Your task to perform on an android device: check google app version Image 0: 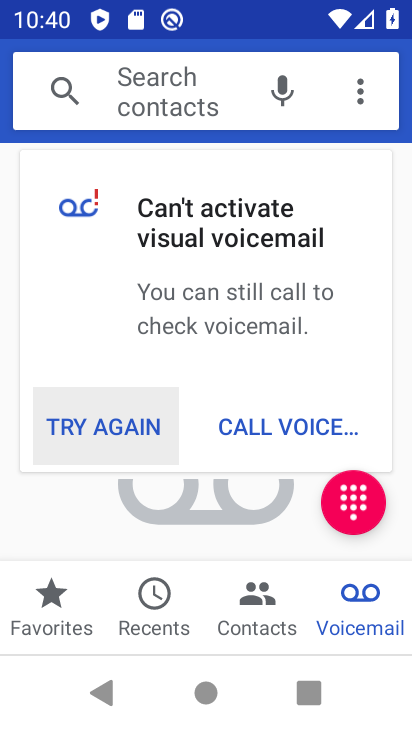
Step 0: press home button
Your task to perform on an android device: check google app version Image 1: 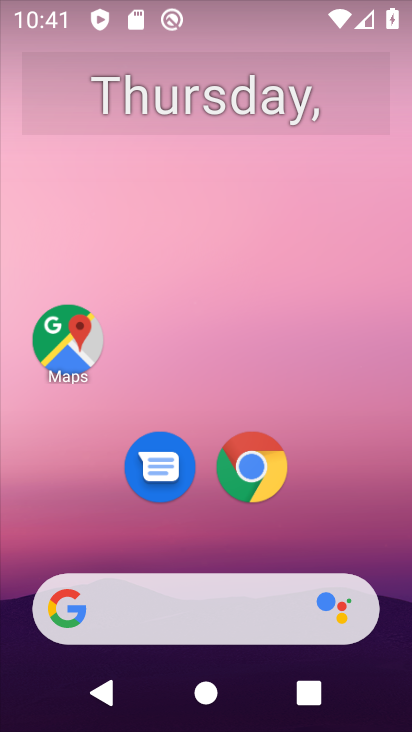
Step 1: drag from (183, 526) to (151, 212)
Your task to perform on an android device: check google app version Image 2: 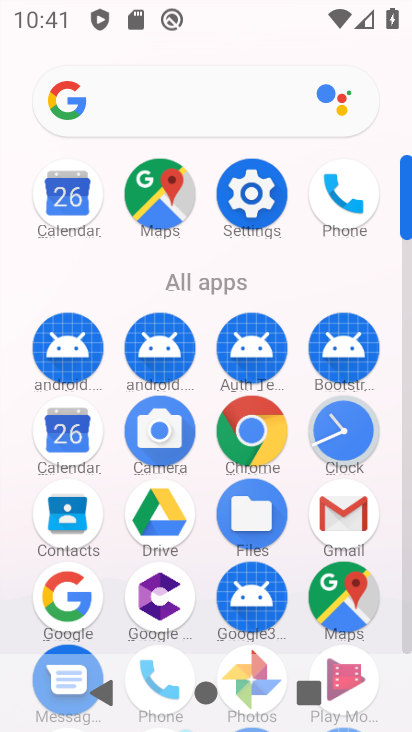
Step 2: click (54, 595)
Your task to perform on an android device: check google app version Image 3: 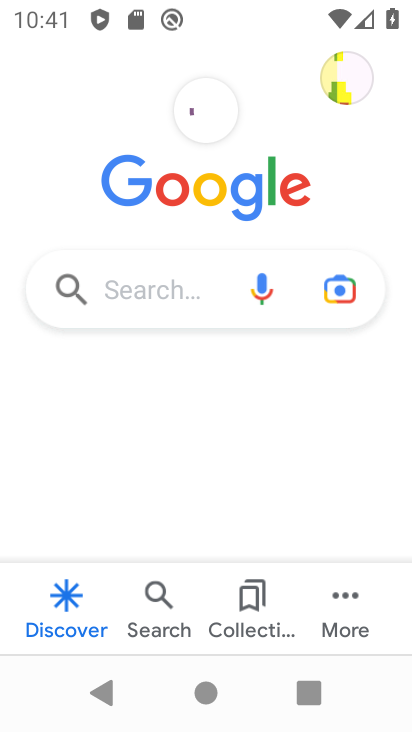
Step 3: click (217, 599)
Your task to perform on an android device: check google app version Image 4: 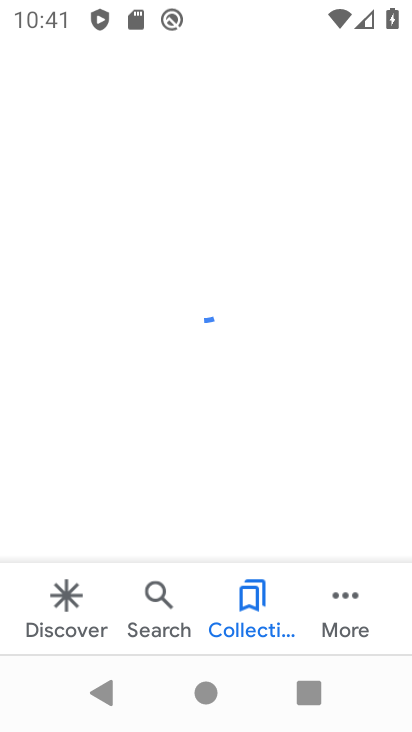
Step 4: click (342, 615)
Your task to perform on an android device: check google app version Image 5: 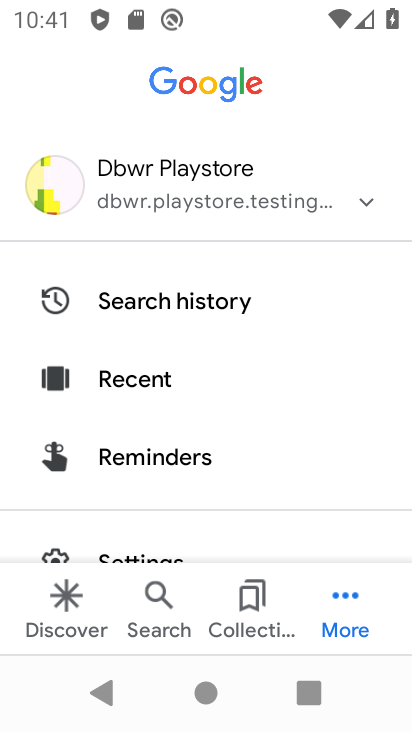
Step 5: click (164, 551)
Your task to perform on an android device: check google app version Image 6: 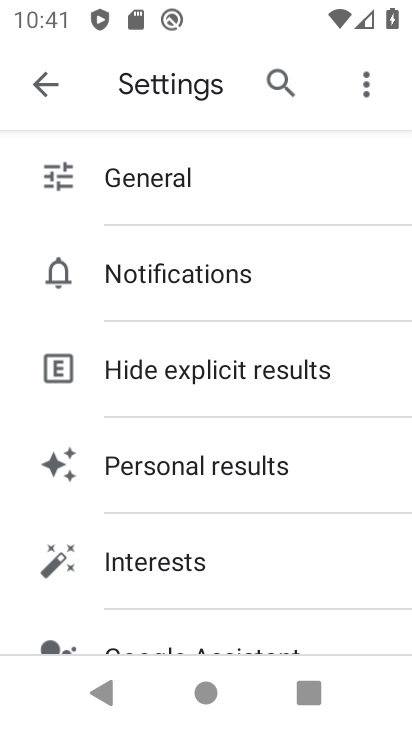
Step 6: drag from (180, 591) to (294, 208)
Your task to perform on an android device: check google app version Image 7: 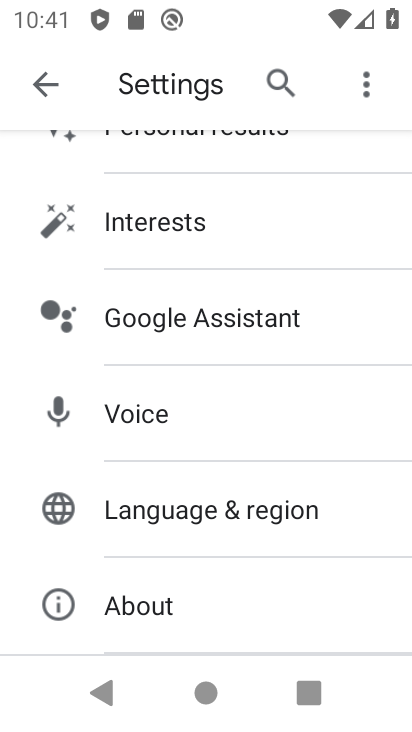
Step 7: click (188, 614)
Your task to perform on an android device: check google app version Image 8: 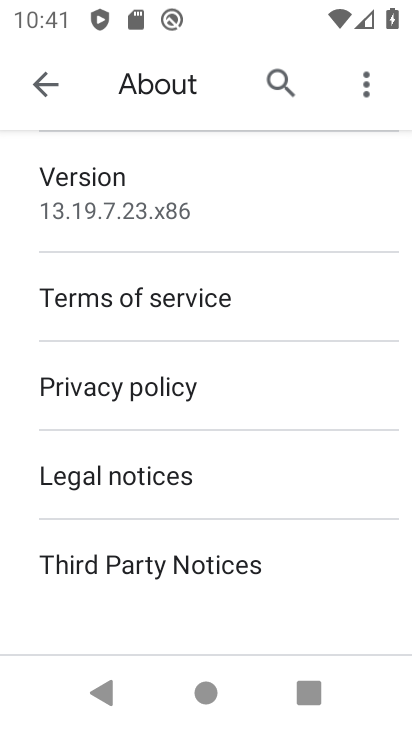
Step 8: click (290, 206)
Your task to perform on an android device: check google app version Image 9: 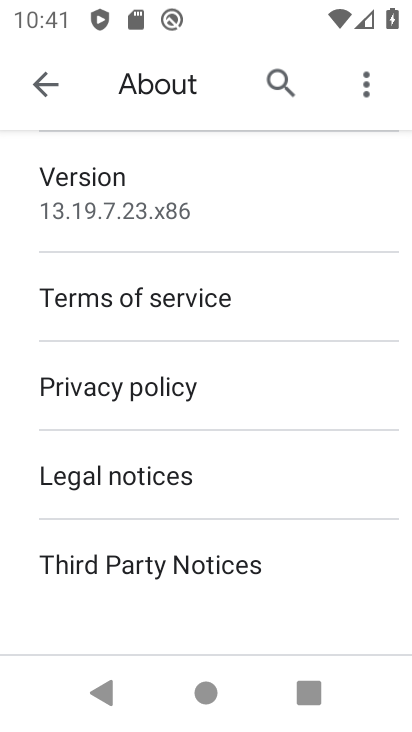
Step 9: task complete